Your task to perform on an android device: make emails show in primary in the gmail app Image 0: 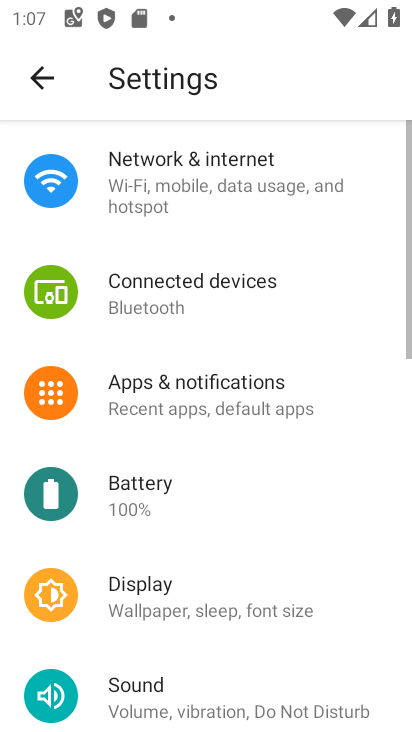
Step 0: press home button
Your task to perform on an android device: make emails show in primary in the gmail app Image 1: 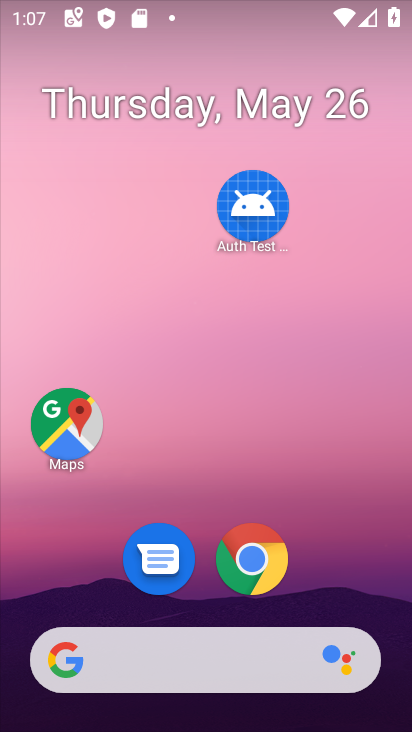
Step 1: drag from (365, 618) to (376, 80)
Your task to perform on an android device: make emails show in primary in the gmail app Image 2: 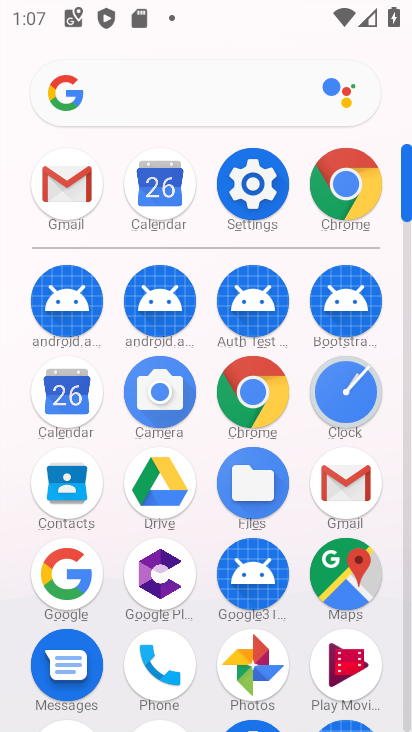
Step 2: click (352, 477)
Your task to perform on an android device: make emails show in primary in the gmail app Image 3: 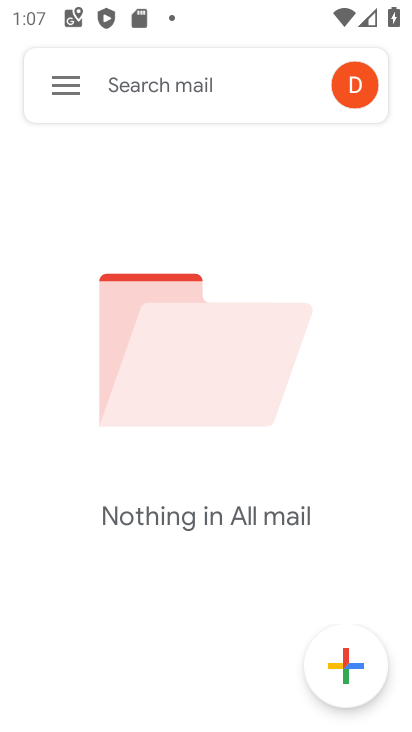
Step 3: click (40, 80)
Your task to perform on an android device: make emails show in primary in the gmail app Image 4: 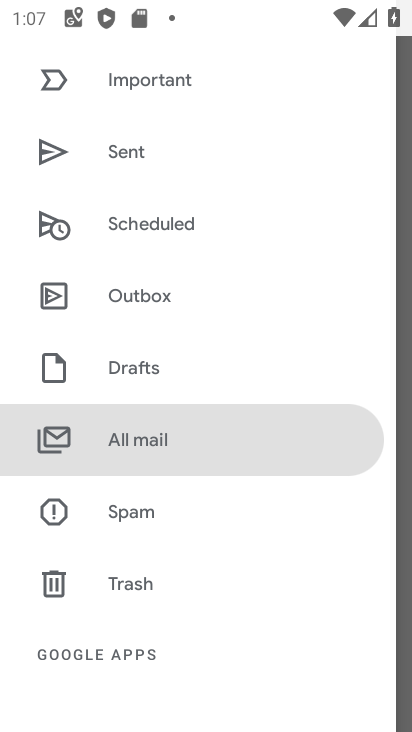
Step 4: drag from (133, 560) to (78, 221)
Your task to perform on an android device: make emails show in primary in the gmail app Image 5: 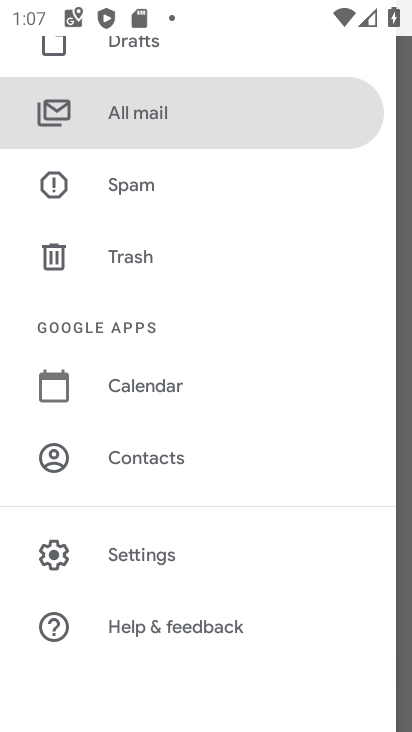
Step 5: click (92, 542)
Your task to perform on an android device: make emails show in primary in the gmail app Image 6: 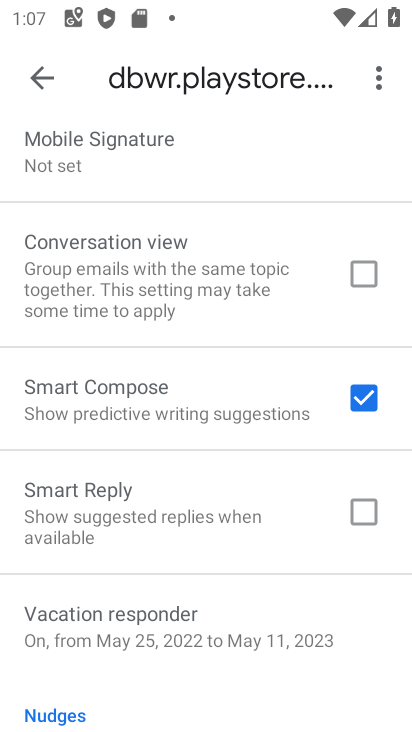
Step 6: drag from (160, 176) to (155, 609)
Your task to perform on an android device: make emails show in primary in the gmail app Image 7: 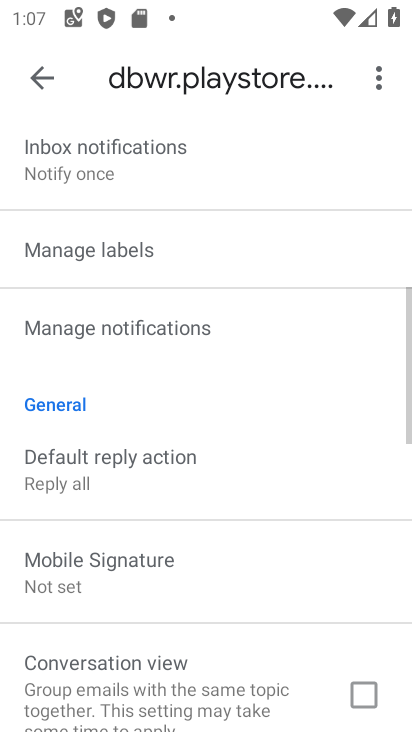
Step 7: drag from (121, 171) to (138, 698)
Your task to perform on an android device: make emails show in primary in the gmail app Image 8: 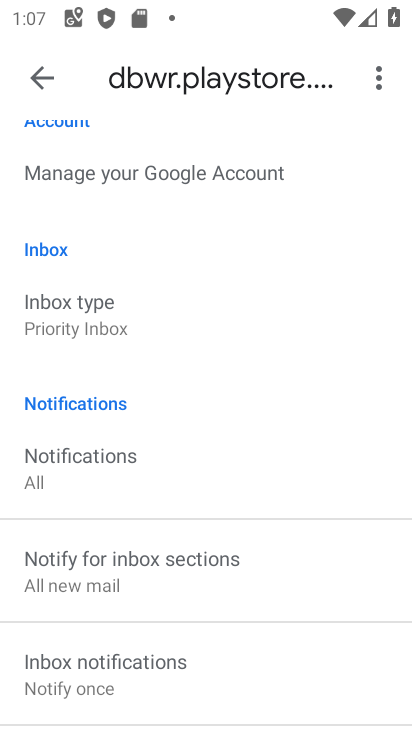
Step 8: click (75, 317)
Your task to perform on an android device: make emails show in primary in the gmail app Image 9: 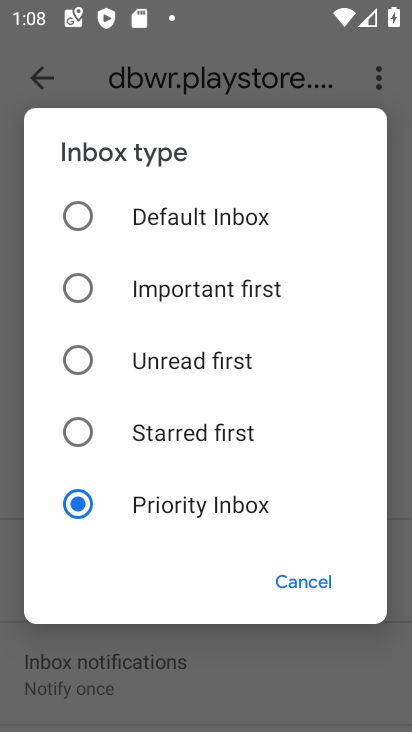
Step 9: click (78, 214)
Your task to perform on an android device: make emails show in primary in the gmail app Image 10: 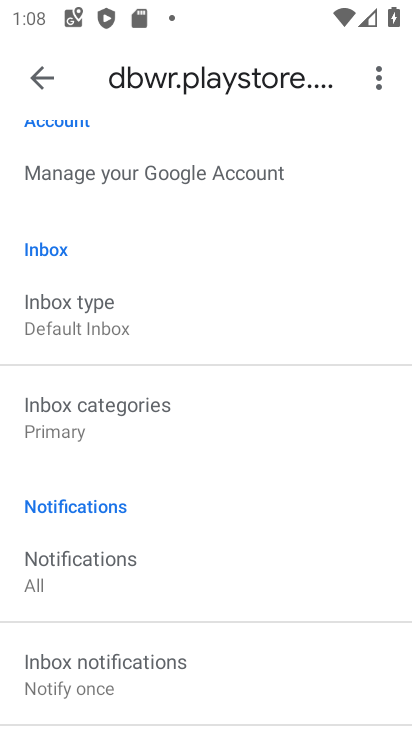
Step 10: task complete